Your task to perform on an android device: change the upload size in google photos Image 0: 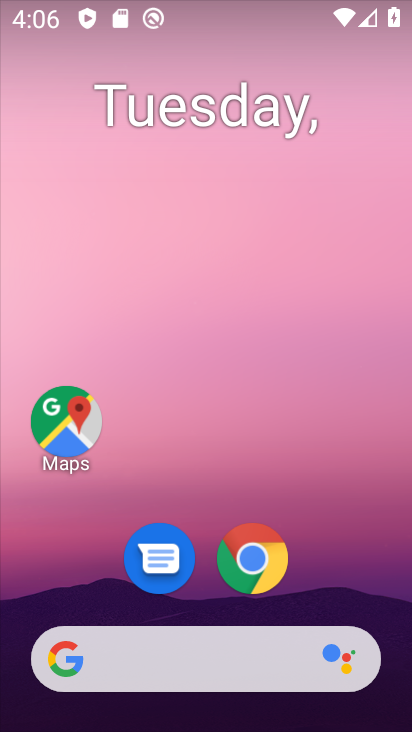
Step 0: drag from (369, 599) to (267, 120)
Your task to perform on an android device: change the upload size in google photos Image 1: 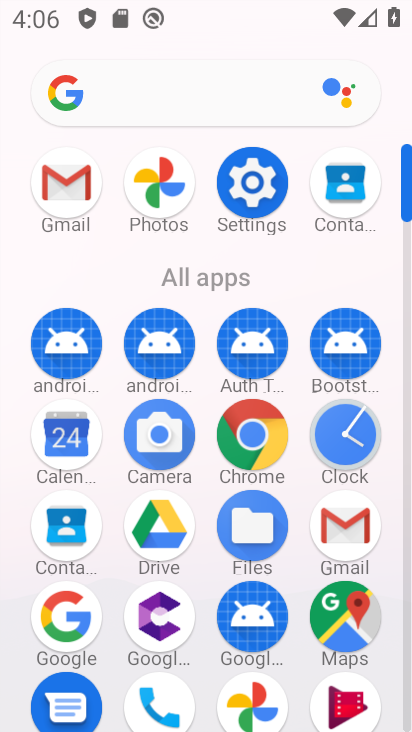
Step 1: click (154, 187)
Your task to perform on an android device: change the upload size in google photos Image 2: 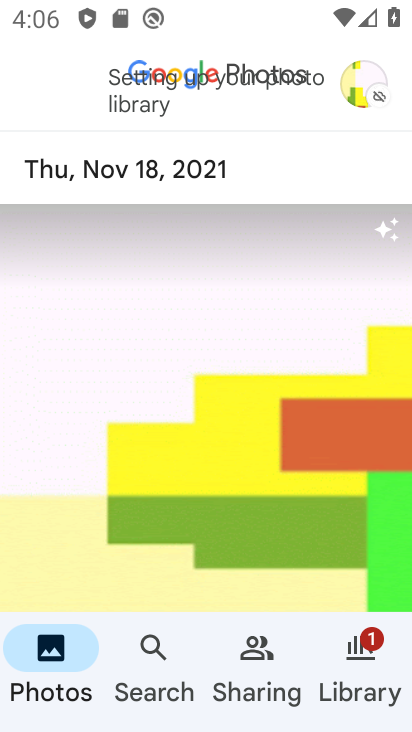
Step 2: click (350, 93)
Your task to perform on an android device: change the upload size in google photos Image 3: 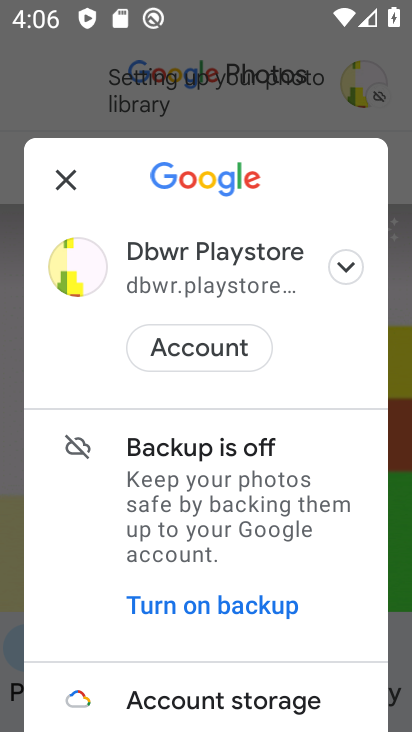
Step 3: drag from (358, 660) to (295, 243)
Your task to perform on an android device: change the upload size in google photos Image 4: 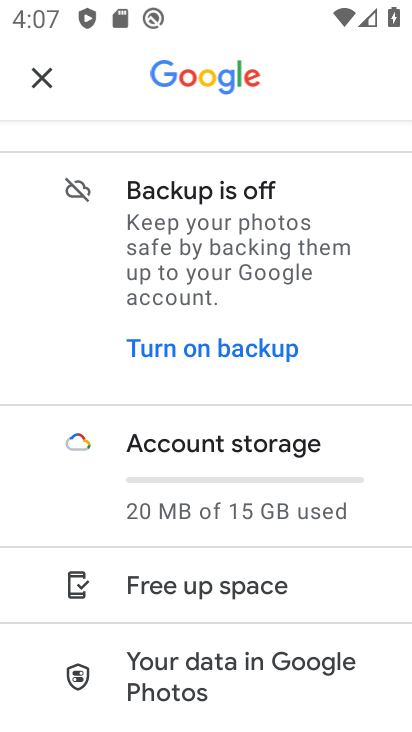
Step 4: click (171, 344)
Your task to perform on an android device: change the upload size in google photos Image 5: 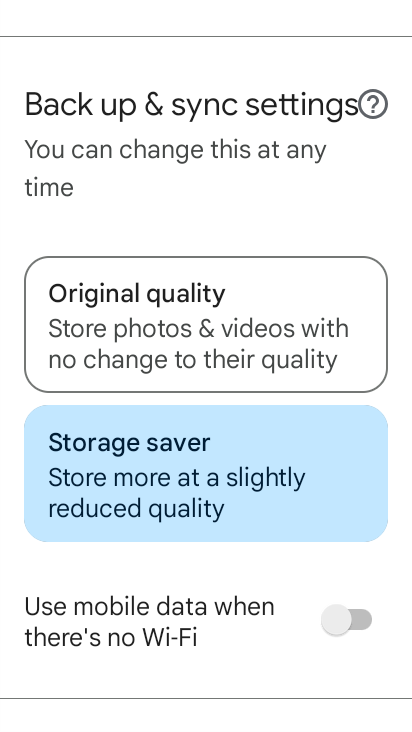
Step 5: click (201, 328)
Your task to perform on an android device: change the upload size in google photos Image 6: 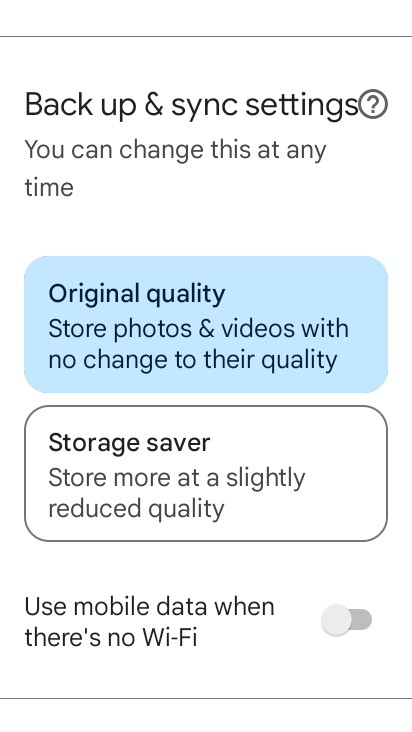
Step 6: task complete